Your task to perform on an android device: Open eBay Image 0: 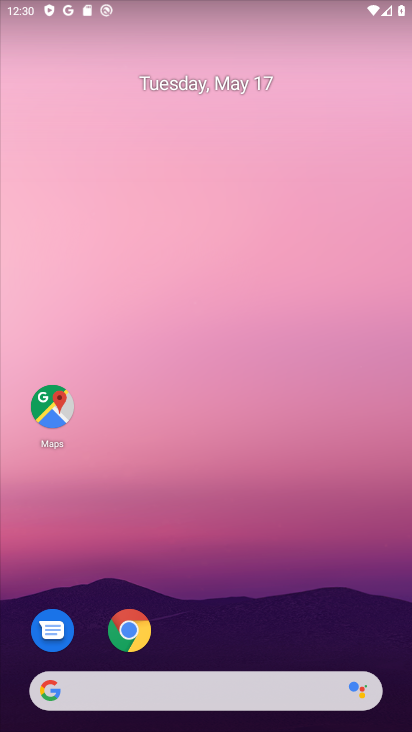
Step 0: click (134, 638)
Your task to perform on an android device: Open eBay Image 1: 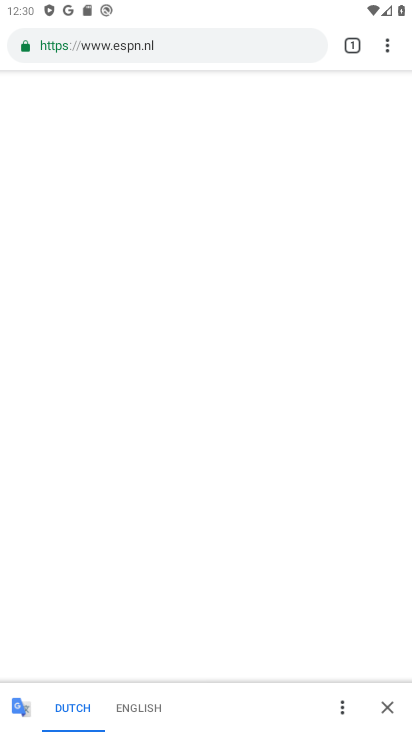
Step 1: click (388, 49)
Your task to perform on an android device: Open eBay Image 2: 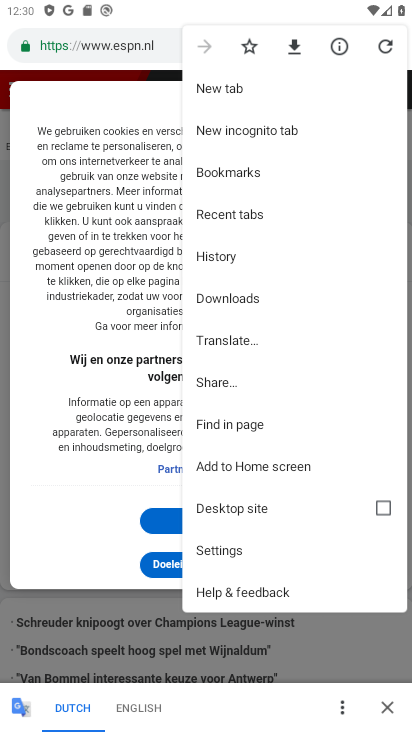
Step 2: click (88, 42)
Your task to perform on an android device: Open eBay Image 3: 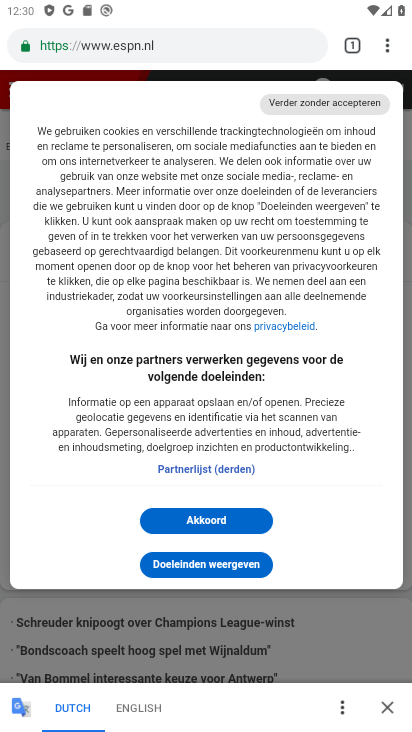
Step 3: click (222, 52)
Your task to perform on an android device: Open eBay Image 4: 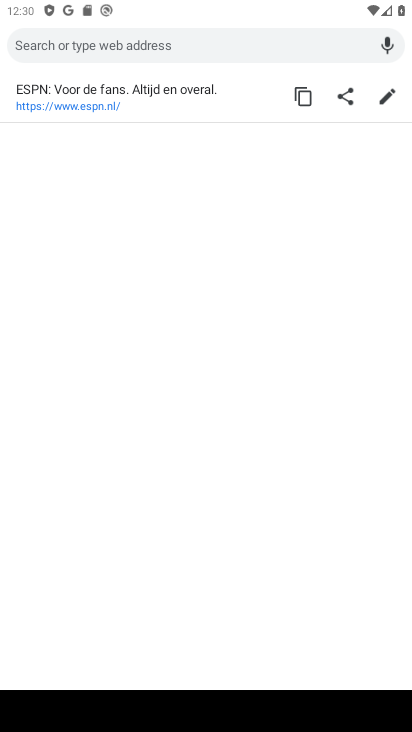
Step 4: type "ebay.com"
Your task to perform on an android device: Open eBay Image 5: 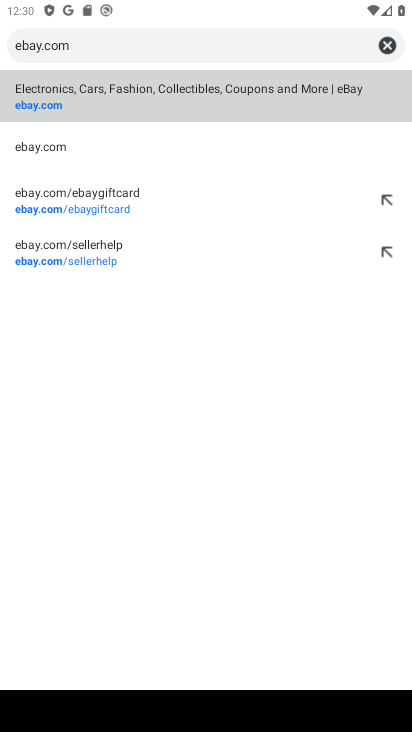
Step 5: click (90, 87)
Your task to perform on an android device: Open eBay Image 6: 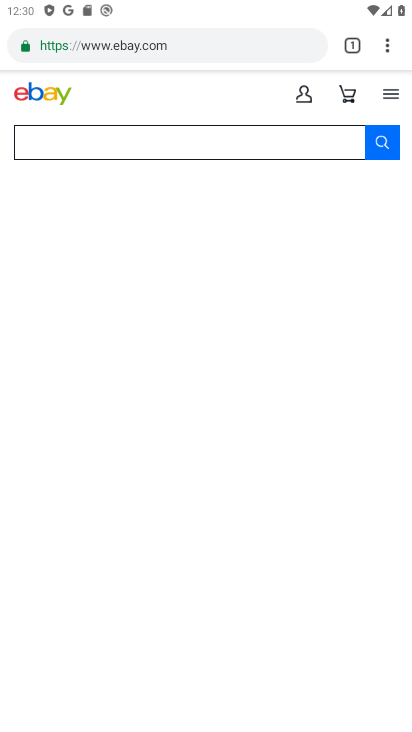
Step 6: task complete